Your task to perform on an android device: Go to CNN.com Image 0: 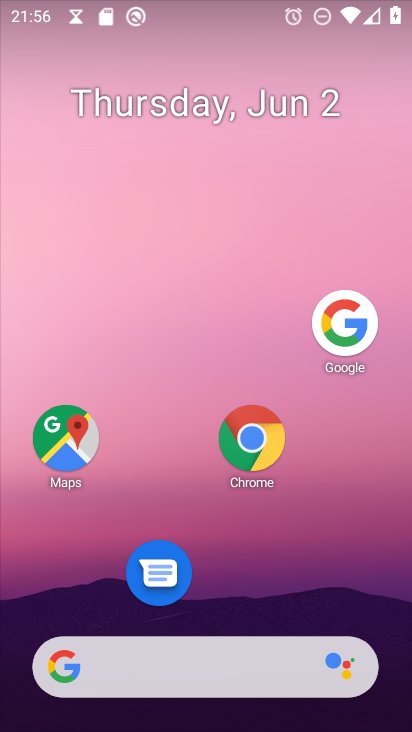
Step 0: press home button
Your task to perform on an android device: Go to CNN.com Image 1: 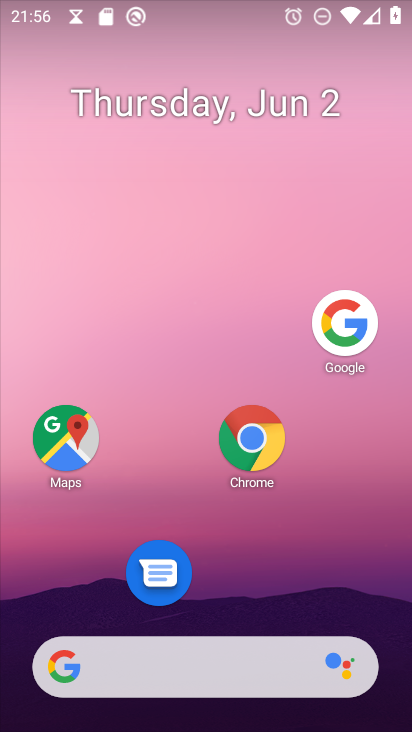
Step 1: click (255, 443)
Your task to perform on an android device: Go to CNN.com Image 2: 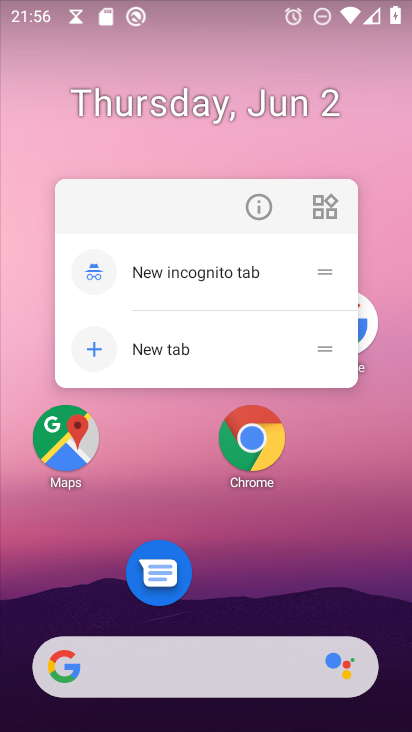
Step 2: click (247, 456)
Your task to perform on an android device: Go to CNN.com Image 3: 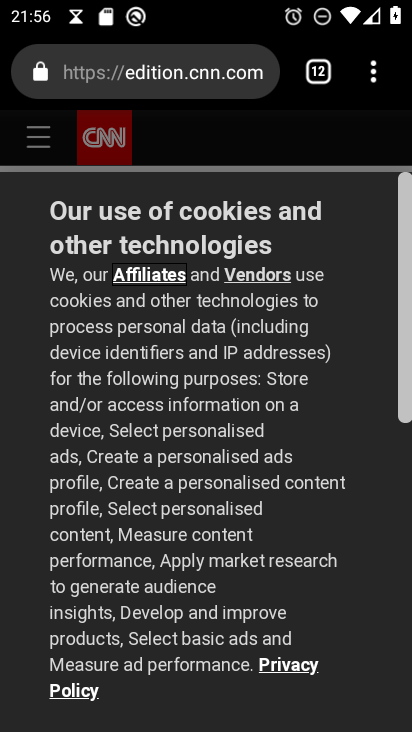
Step 3: drag from (181, 661) to (320, 121)
Your task to perform on an android device: Go to CNN.com Image 4: 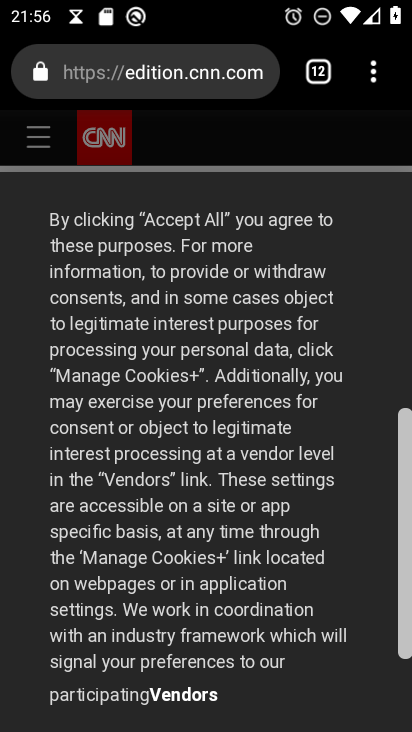
Step 4: drag from (231, 679) to (332, 151)
Your task to perform on an android device: Go to CNN.com Image 5: 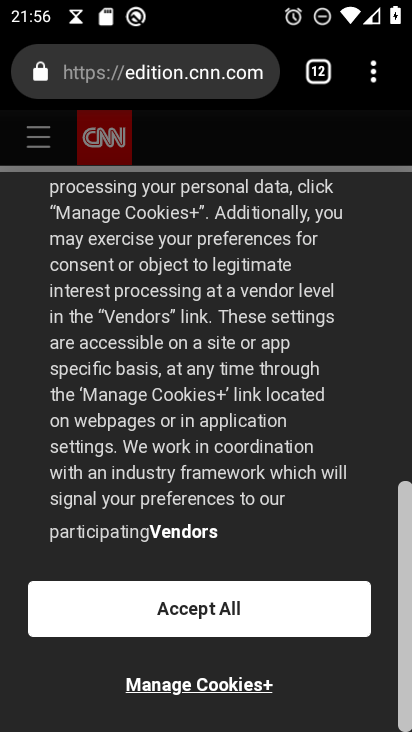
Step 5: click (246, 614)
Your task to perform on an android device: Go to CNN.com Image 6: 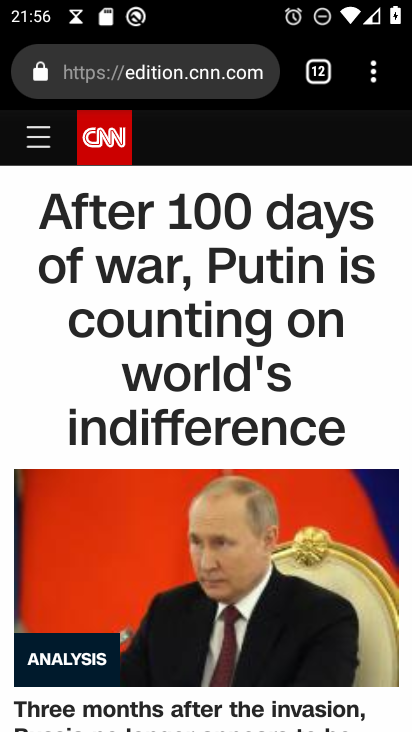
Step 6: task complete